Your task to perform on an android device: Go to Maps Image 0: 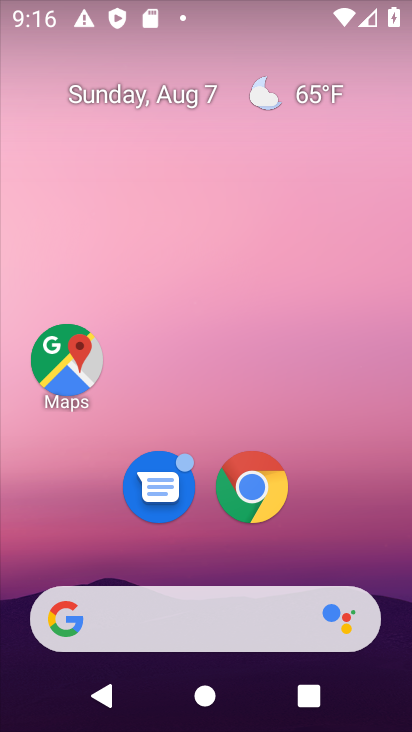
Step 0: click (58, 369)
Your task to perform on an android device: Go to Maps Image 1: 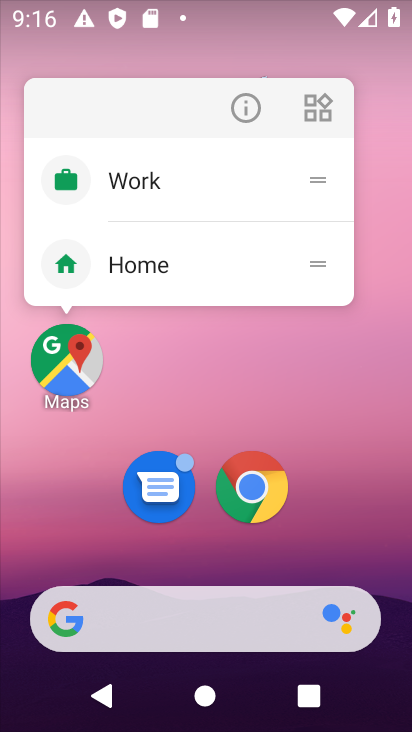
Step 1: click (58, 365)
Your task to perform on an android device: Go to Maps Image 2: 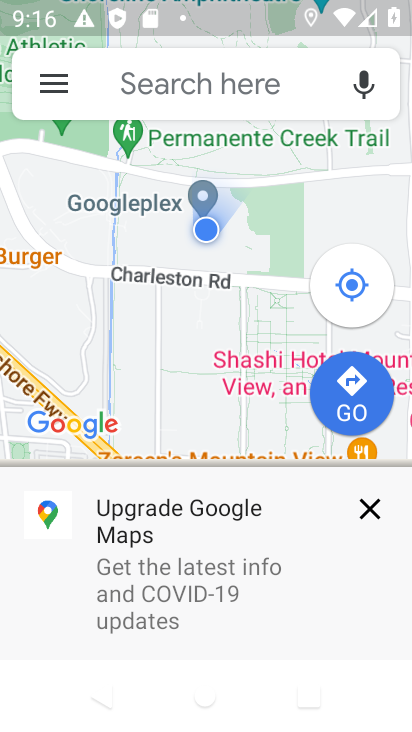
Step 2: task complete